Your task to perform on an android device: Open the phone app and click the voicemail tab. Image 0: 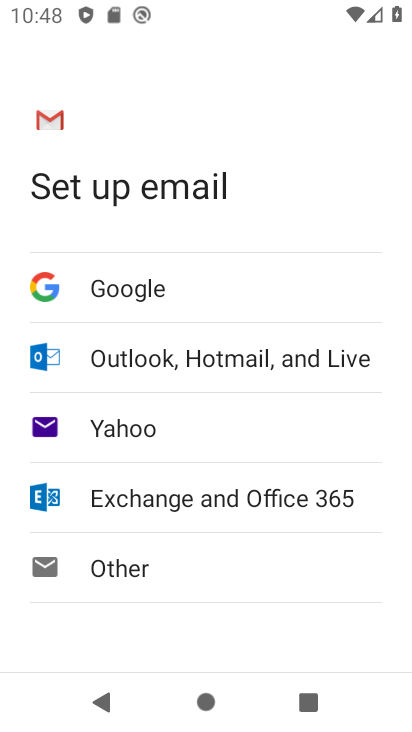
Step 0: press home button
Your task to perform on an android device: Open the phone app and click the voicemail tab. Image 1: 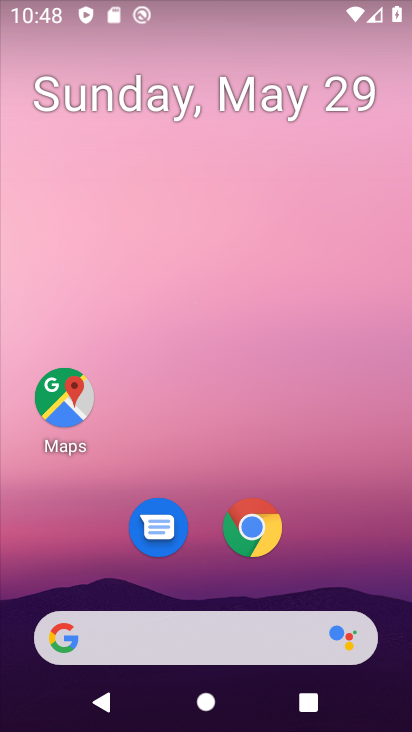
Step 1: drag from (188, 588) to (194, 179)
Your task to perform on an android device: Open the phone app and click the voicemail tab. Image 2: 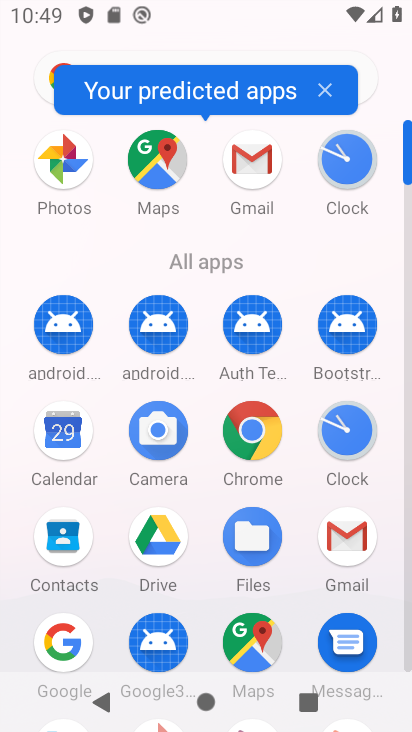
Step 2: drag from (217, 604) to (195, 291)
Your task to perform on an android device: Open the phone app and click the voicemail tab. Image 3: 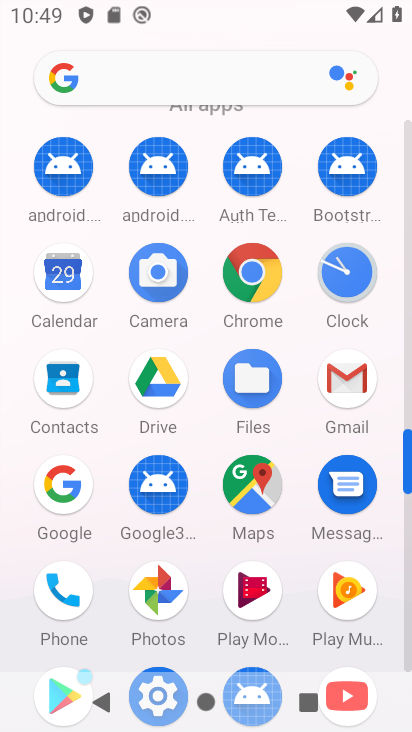
Step 3: click (83, 592)
Your task to perform on an android device: Open the phone app and click the voicemail tab. Image 4: 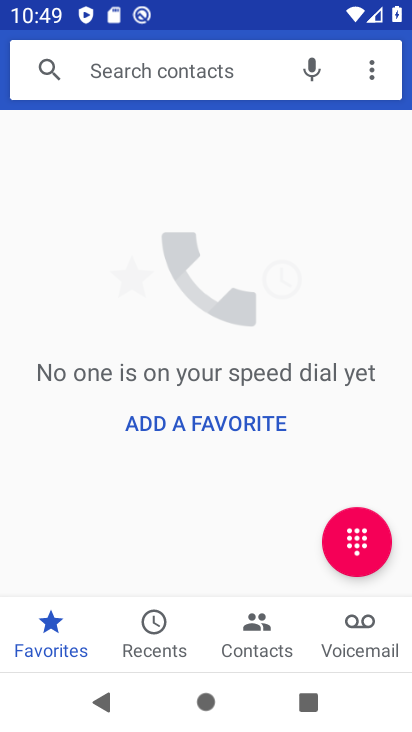
Step 4: click (342, 621)
Your task to perform on an android device: Open the phone app and click the voicemail tab. Image 5: 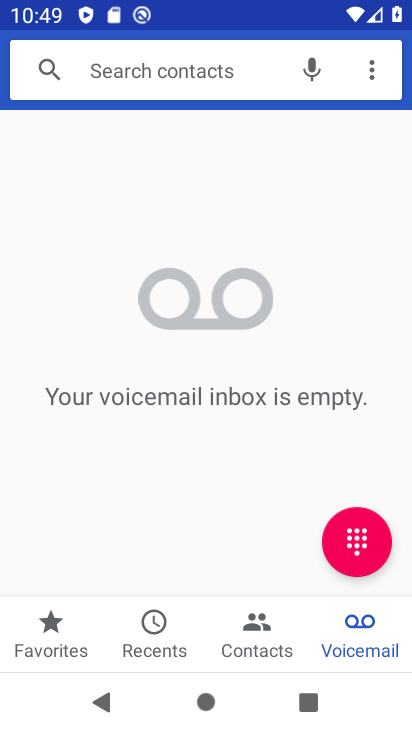
Step 5: task complete